Your task to perform on an android device: turn off location history Image 0: 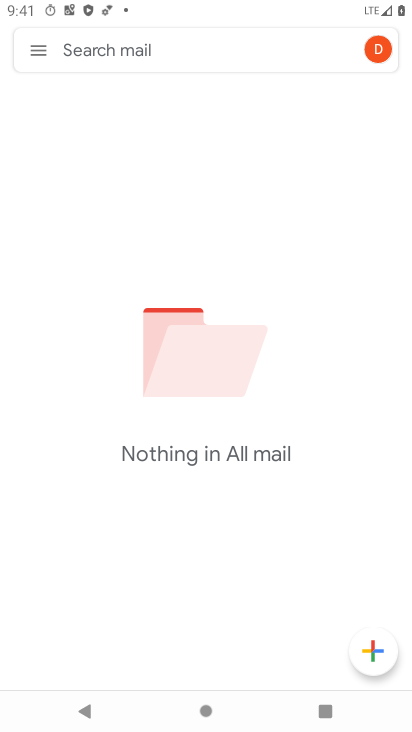
Step 0: press home button
Your task to perform on an android device: turn off location history Image 1: 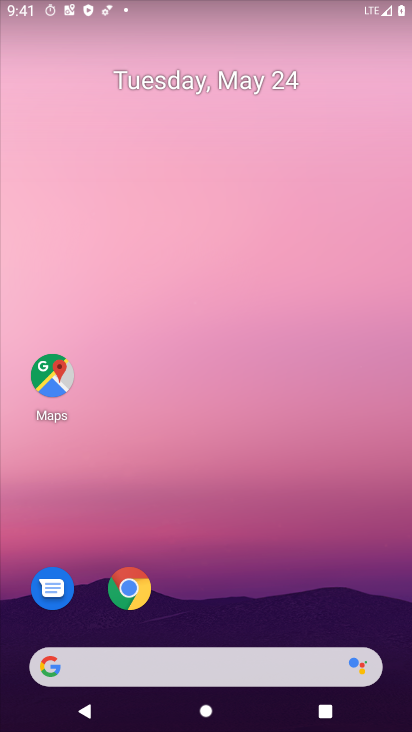
Step 1: drag from (234, 602) to (315, 50)
Your task to perform on an android device: turn off location history Image 2: 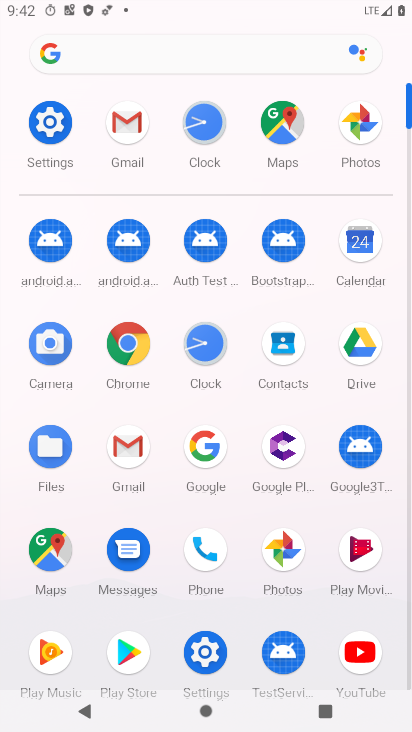
Step 2: click (209, 651)
Your task to perform on an android device: turn off location history Image 3: 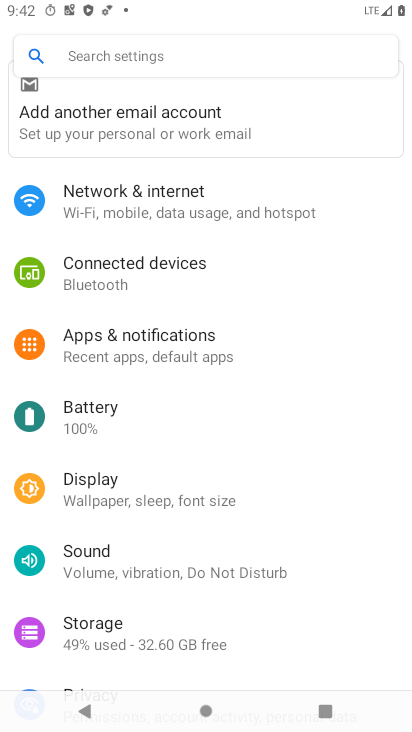
Step 3: drag from (121, 610) to (189, 148)
Your task to perform on an android device: turn off location history Image 4: 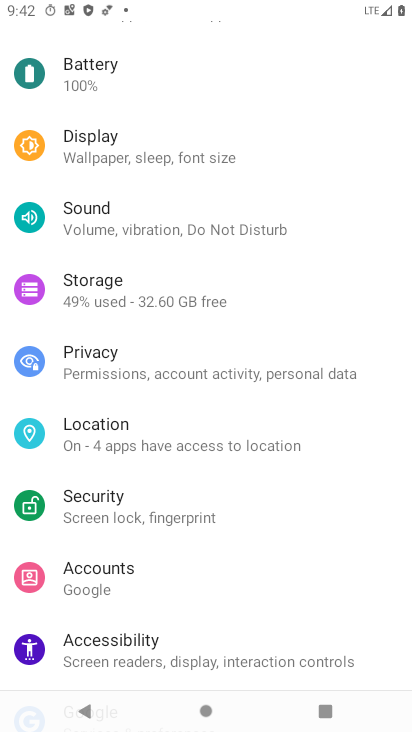
Step 4: click (106, 448)
Your task to perform on an android device: turn off location history Image 5: 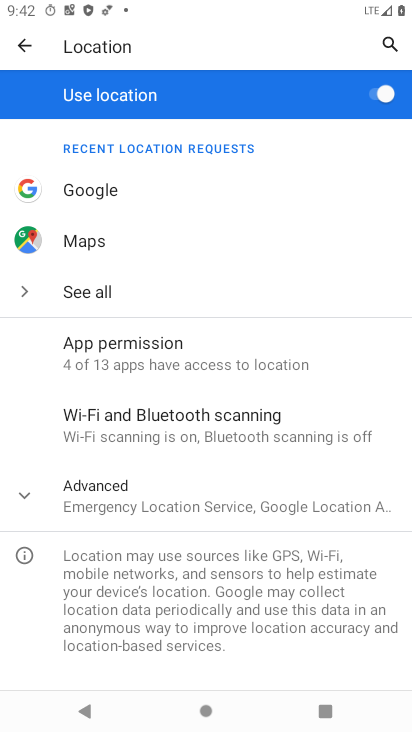
Step 5: click (140, 497)
Your task to perform on an android device: turn off location history Image 6: 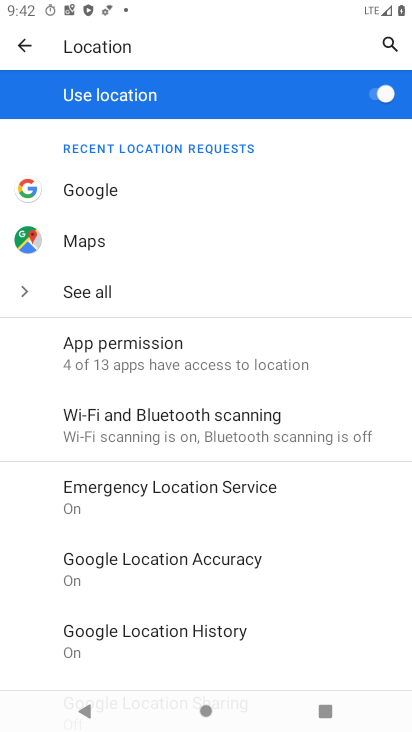
Step 6: click (195, 632)
Your task to perform on an android device: turn off location history Image 7: 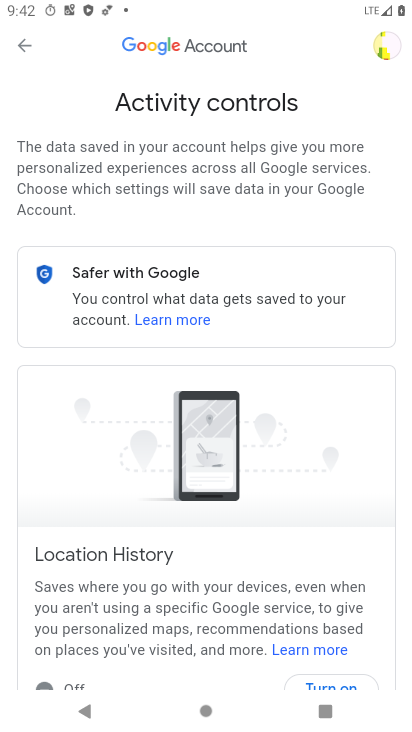
Step 7: task complete